Your task to perform on an android device: turn on airplane mode Image 0: 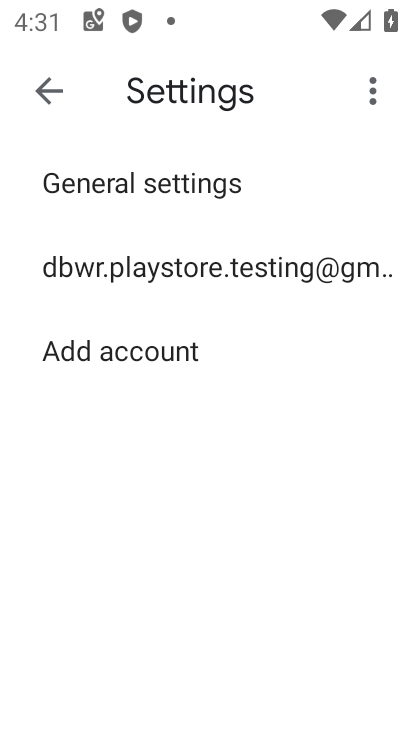
Step 0: press home button
Your task to perform on an android device: turn on airplane mode Image 1: 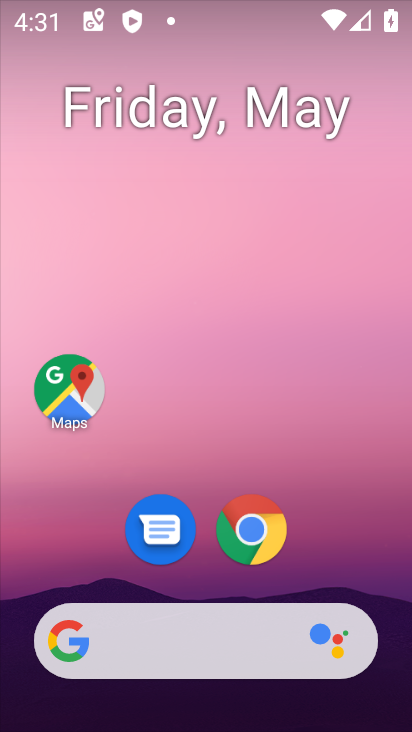
Step 1: drag from (64, 588) to (216, 31)
Your task to perform on an android device: turn on airplane mode Image 2: 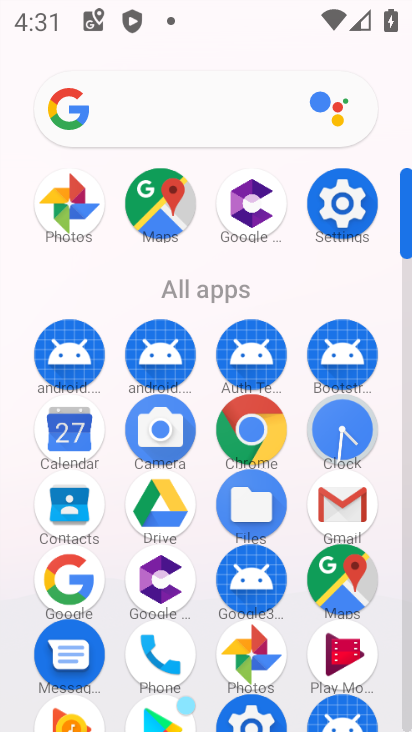
Step 2: drag from (196, 557) to (269, 259)
Your task to perform on an android device: turn on airplane mode Image 3: 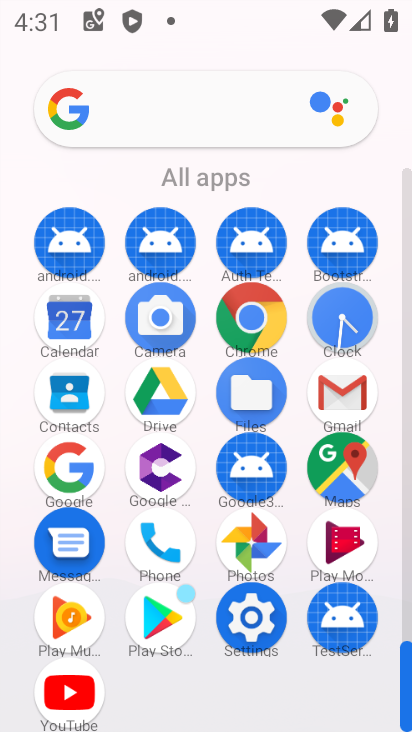
Step 3: click (258, 619)
Your task to perform on an android device: turn on airplane mode Image 4: 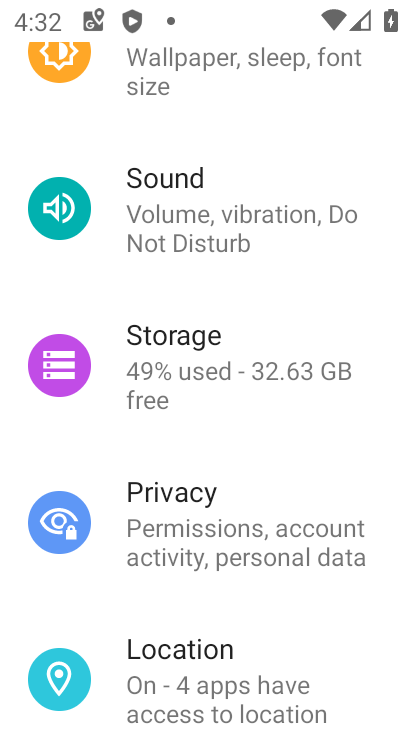
Step 4: drag from (254, 164) to (257, 592)
Your task to perform on an android device: turn on airplane mode Image 5: 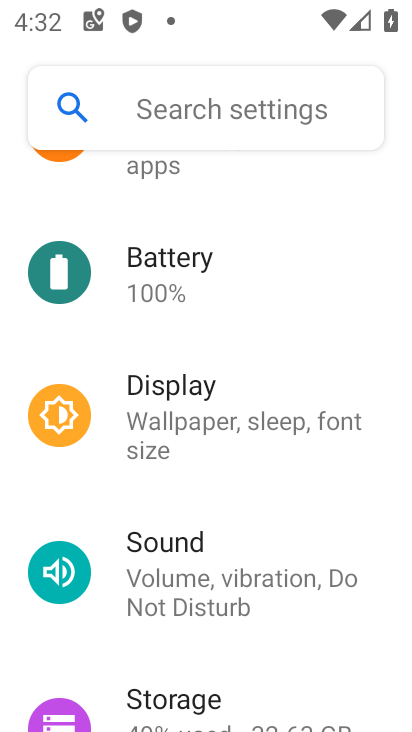
Step 5: drag from (270, 213) to (244, 658)
Your task to perform on an android device: turn on airplane mode Image 6: 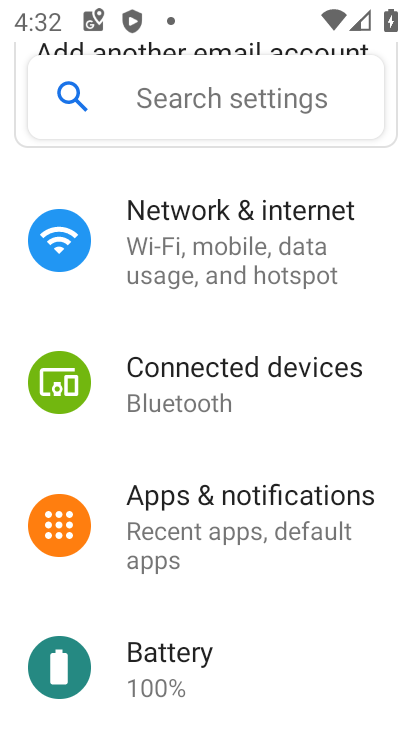
Step 6: click (264, 244)
Your task to perform on an android device: turn on airplane mode Image 7: 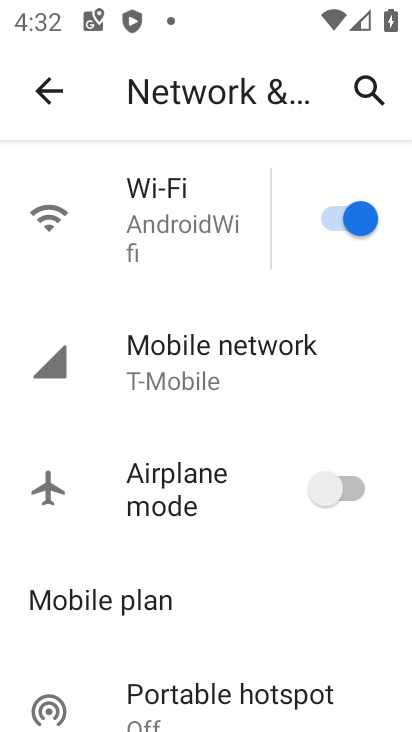
Step 7: click (342, 486)
Your task to perform on an android device: turn on airplane mode Image 8: 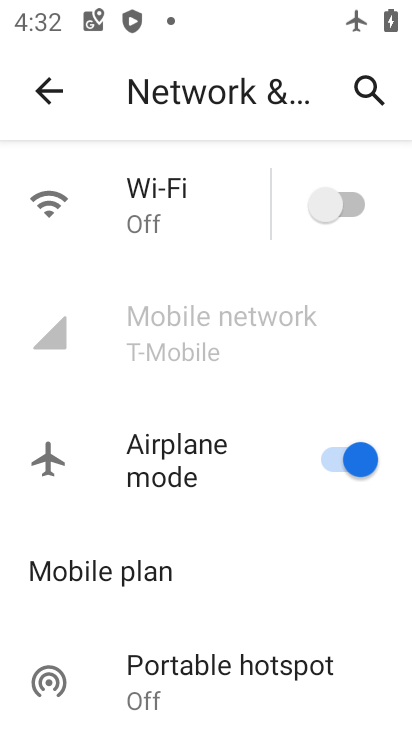
Step 8: task complete